Your task to perform on an android device: Do I have any events tomorrow? Image 0: 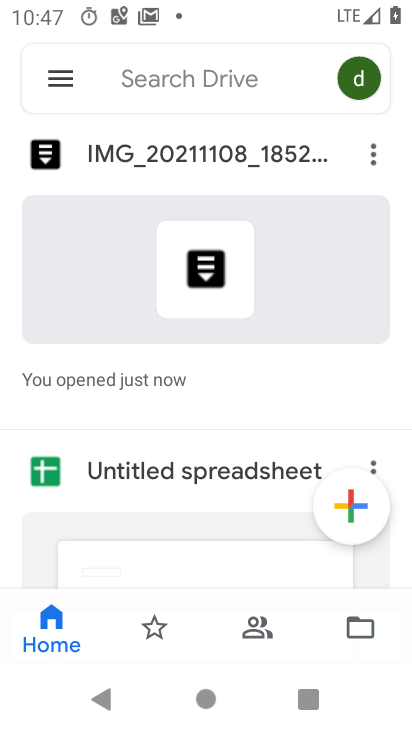
Step 0: press home button
Your task to perform on an android device: Do I have any events tomorrow? Image 1: 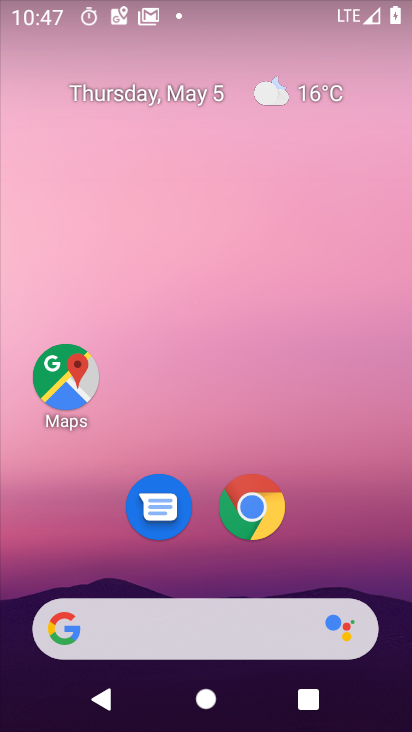
Step 1: drag from (201, 579) to (185, 153)
Your task to perform on an android device: Do I have any events tomorrow? Image 2: 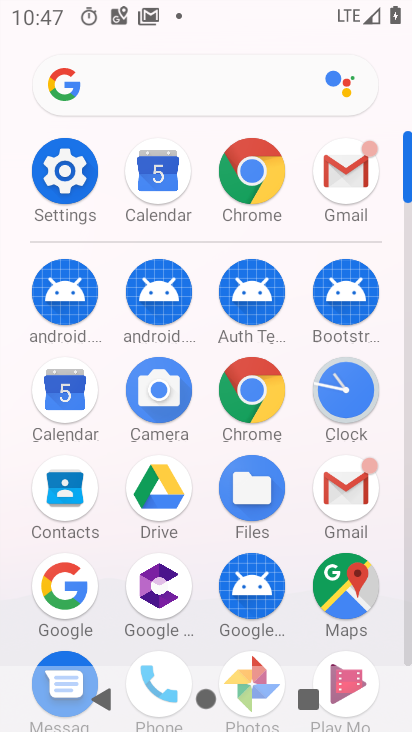
Step 2: click (54, 398)
Your task to perform on an android device: Do I have any events tomorrow? Image 3: 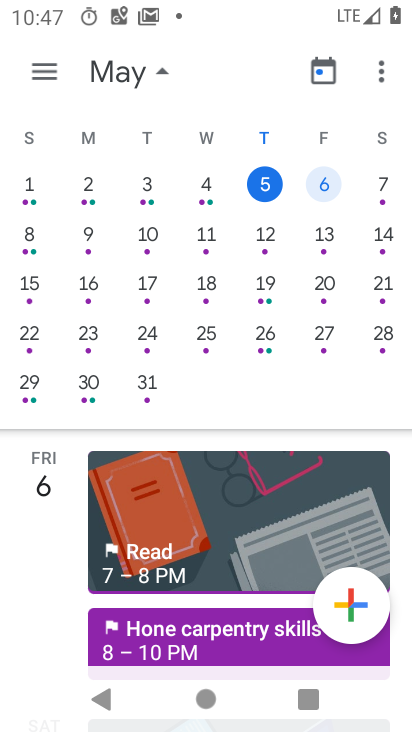
Step 3: click (376, 184)
Your task to perform on an android device: Do I have any events tomorrow? Image 4: 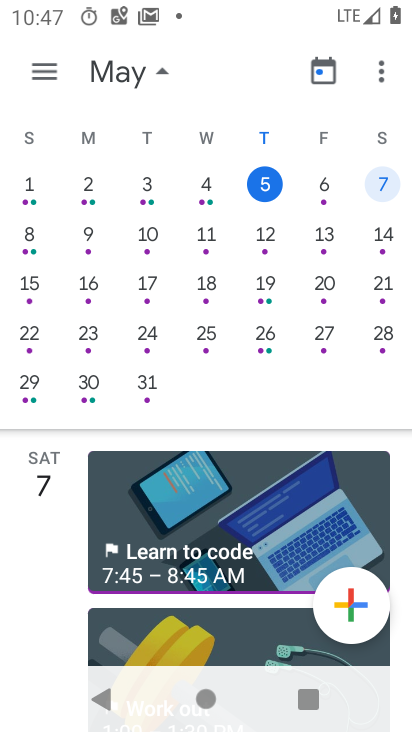
Step 4: task complete